Your task to perform on an android device: Open notification settings Image 0: 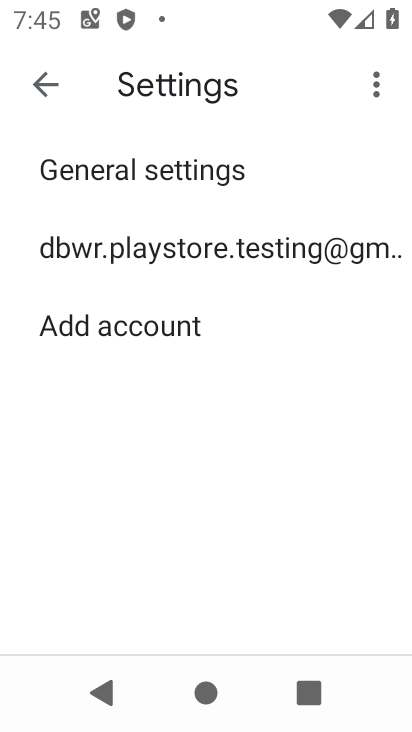
Step 0: press home button
Your task to perform on an android device: Open notification settings Image 1: 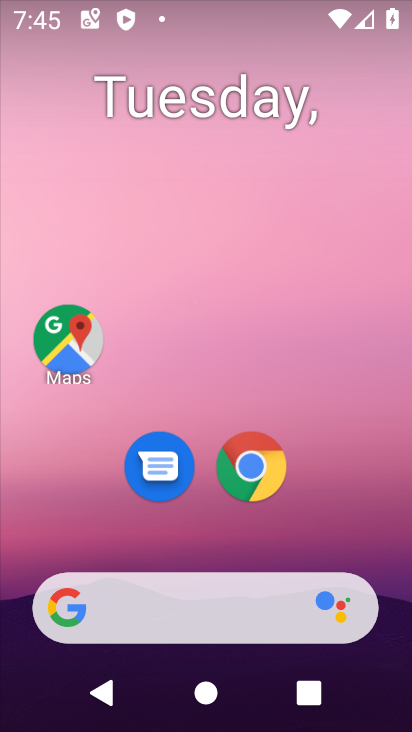
Step 1: drag from (211, 533) to (207, 15)
Your task to perform on an android device: Open notification settings Image 2: 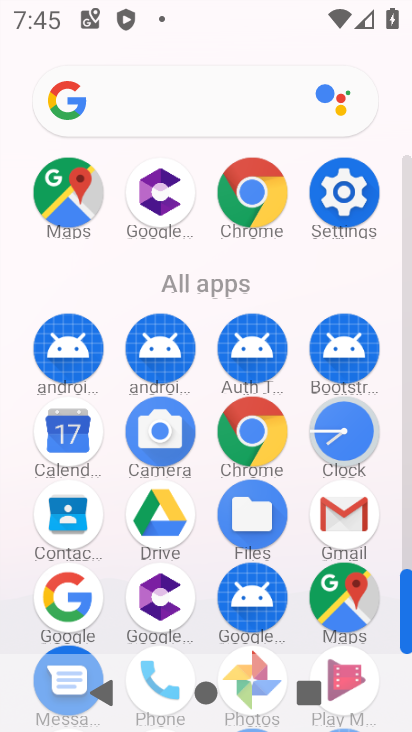
Step 2: click (346, 186)
Your task to perform on an android device: Open notification settings Image 3: 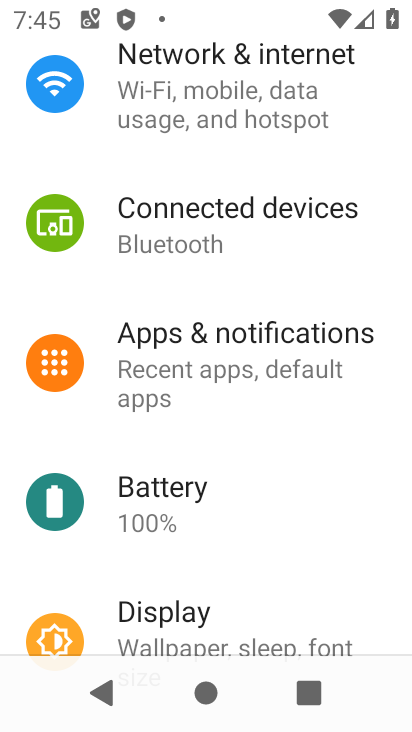
Step 3: click (212, 368)
Your task to perform on an android device: Open notification settings Image 4: 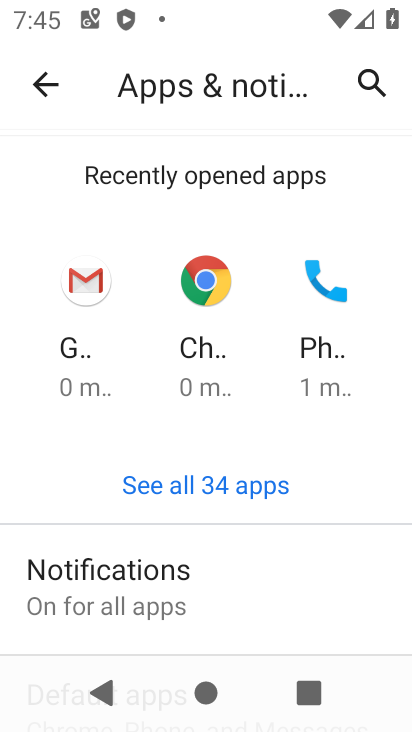
Step 4: click (260, 581)
Your task to perform on an android device: Open notification settings Image 5: 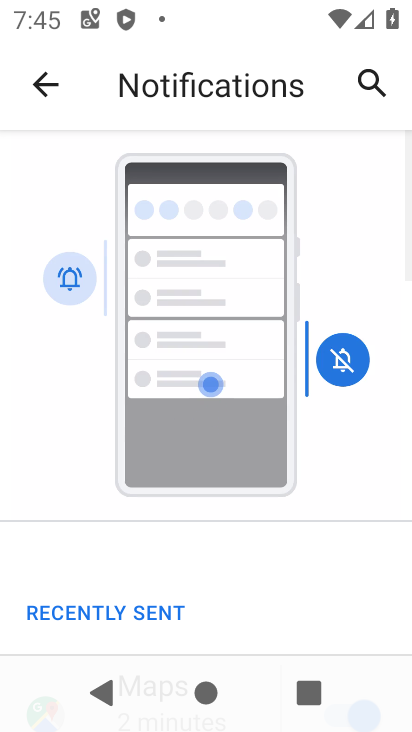
Step 5: drag from (215, 618) to (217, 118)
Your task to perform on an android device: Open notification settings Image 6: 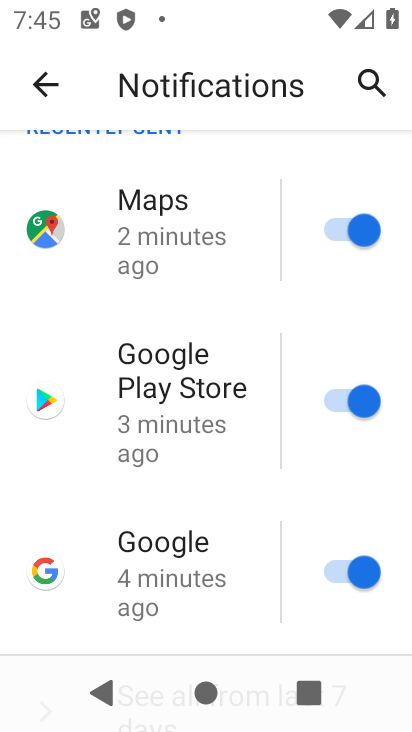
Step 6: drag from (203, 625) to (186, 186)
Your task to perform on an android device: Open notification settings Image 7: 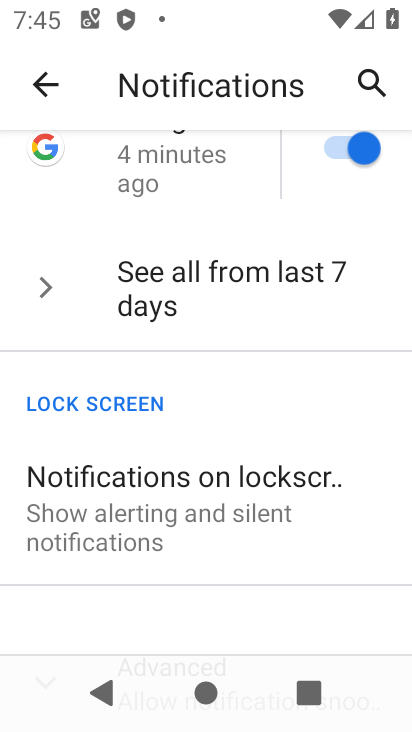
Step 7: drag from (227, 584) to (227, 269)
Your task to perform on an android device: Open notification settings Image 8: 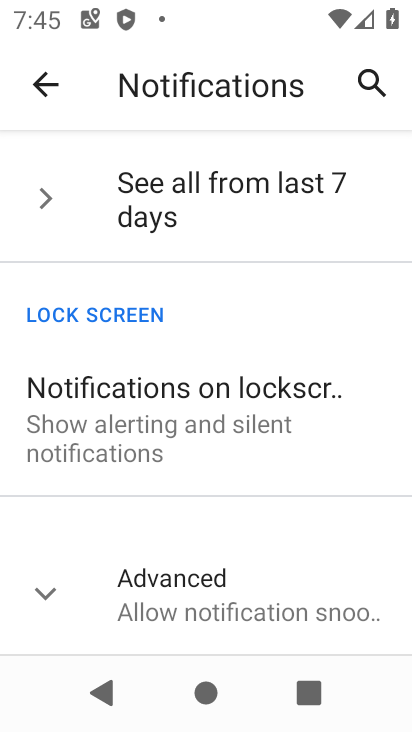
Step 8: click (94, 606)
Your task to perform on an android device: Open notification settings Image 9: 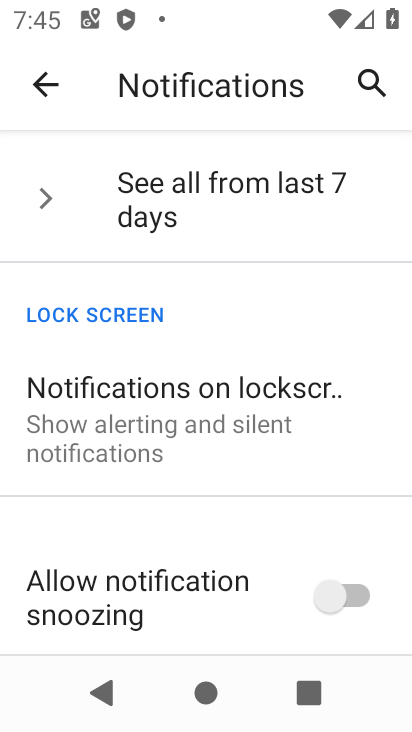
Step 9: task complete